Your task to perform on an android device: Search for seafood restaurants on Google Maps Image 0: 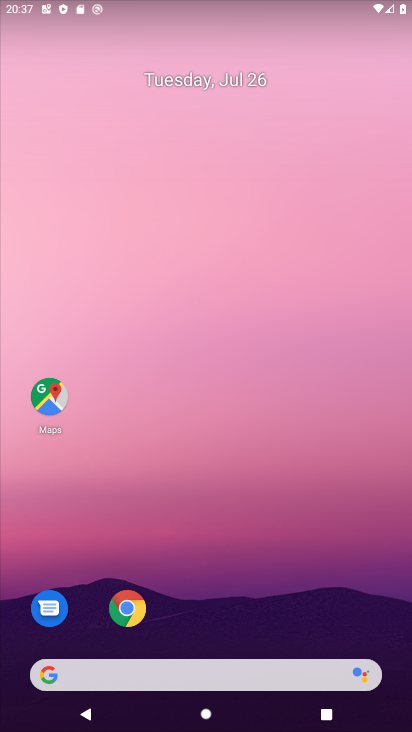
Step 0: click (56, 387)
Your task to perform on an android device: Search for seafood restaurants on Google Maps Image 1: 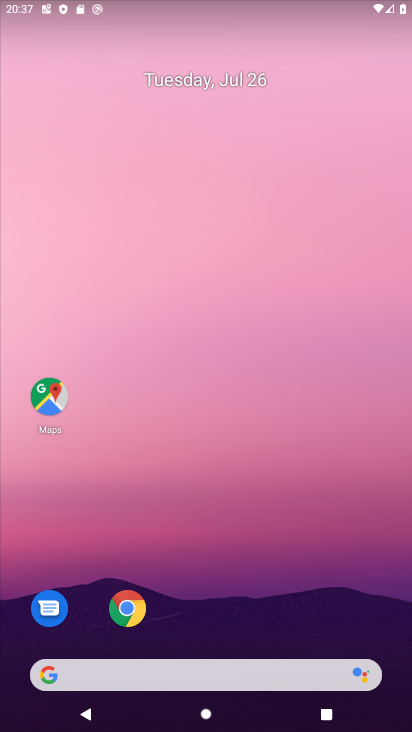
Step 1: click (47, 396)
Your task to perform on an android device: Search for seafood restaurants on Google Maps Image 2: 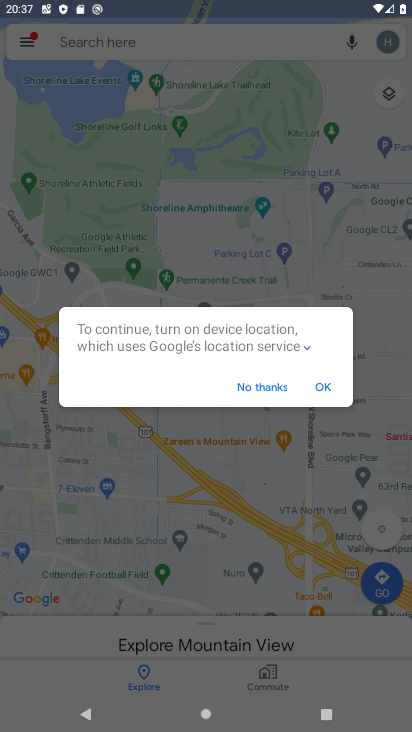
Step 2: click (324, 394)
Your task to perform on an android device: Search for seafood restaurants on Google Maps Image 3: 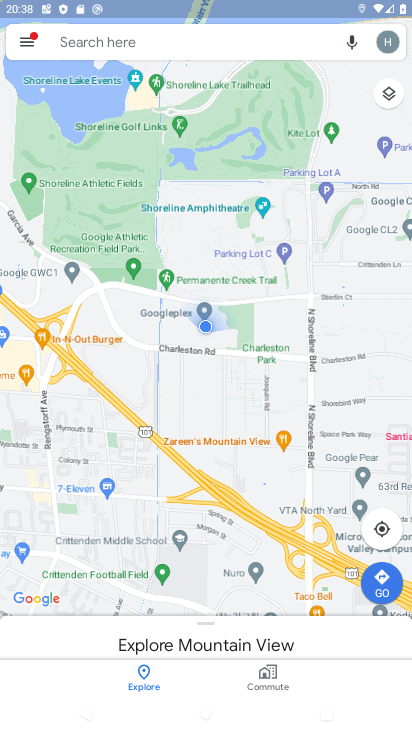
Step 3: click (87, 40)
Your task to perform on an android device: Search for seafood restaurants on Google Maps Image 4: 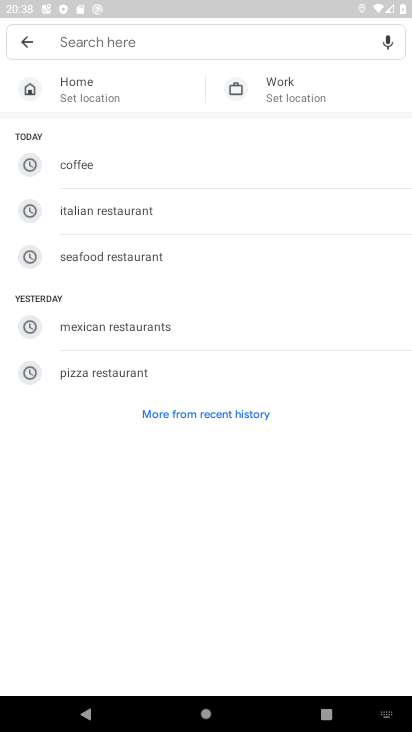
Step 4: type " seafood restaurants"
Your task to perform on an android device: Search for seafood restaurants on Google Maps Image 5: 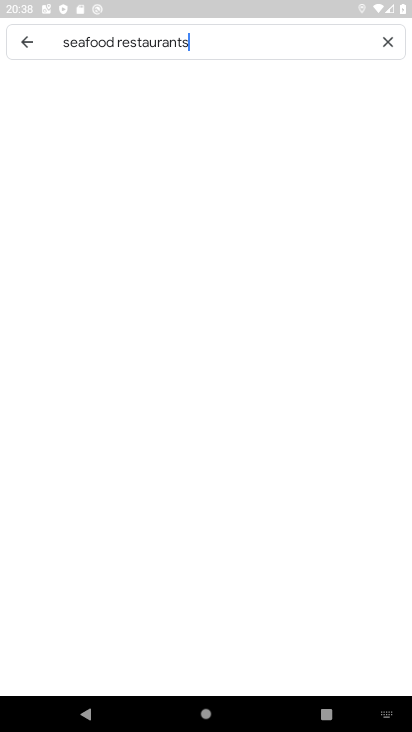
Step 5: type ""
Your task to perform on an android device: Search for seafood restaurants on Google Maps Image 6: 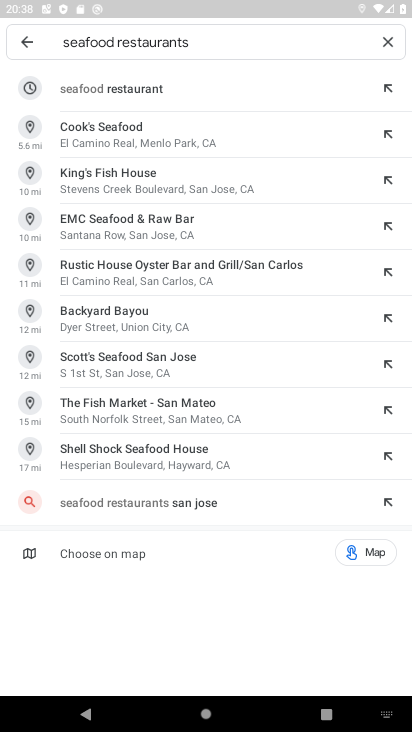
Step 6: type ""
Your task to perform on an android device: Search for seafood restaurants on Google Maps Image 7: 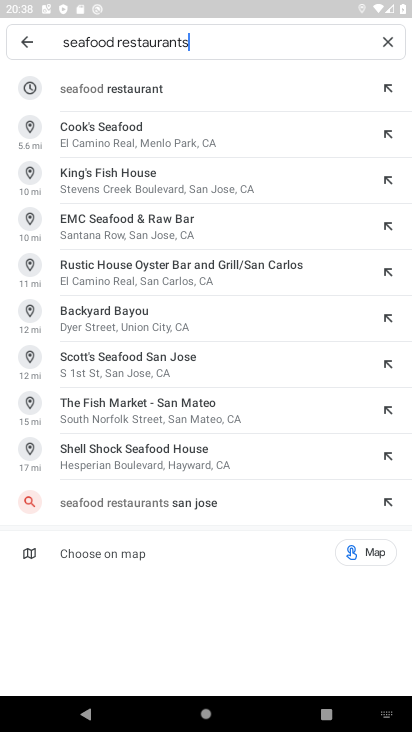
Step 7: type ""
Your task to perform on an android device: Search for seafood restaurants on Google Maps Image 8: 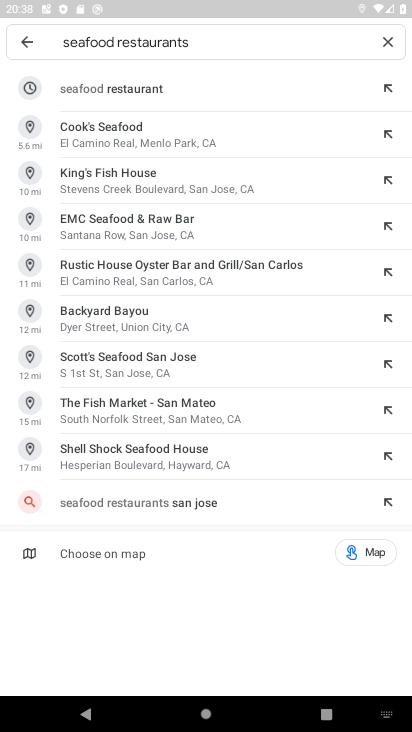
Step 8: task complete